Your task to perform on an android device: Open calendar and show me the first week of next month Image 0: 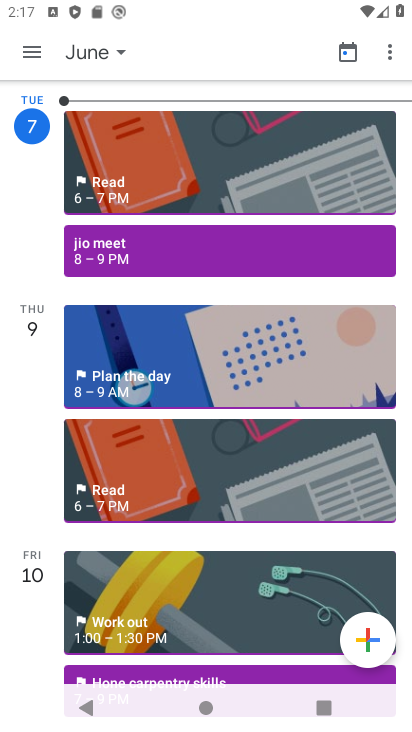
Step 0: press home button
Your task to perform on an android device: Open calendar and show me the first week of next month Image 1: 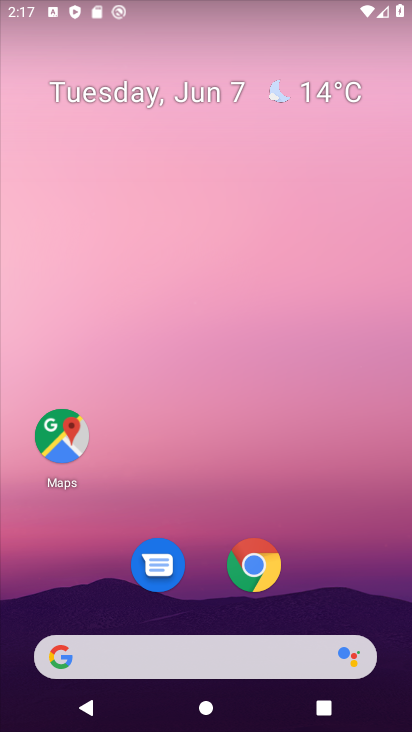
Step 1: drag from (231, 590) to (216, 62)
Your task to perform on an android device: Open calendar and show me the first week of next month Image 2: 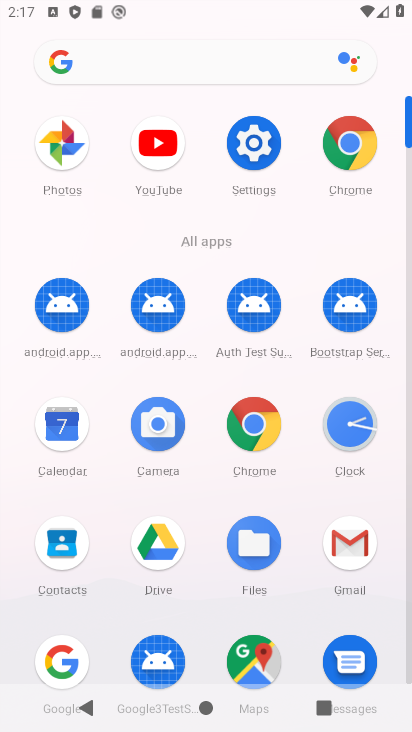
Step 2: click (69, 436)
Your task to perform on an android device: Open calendar and show me the first week of next month Image 3: 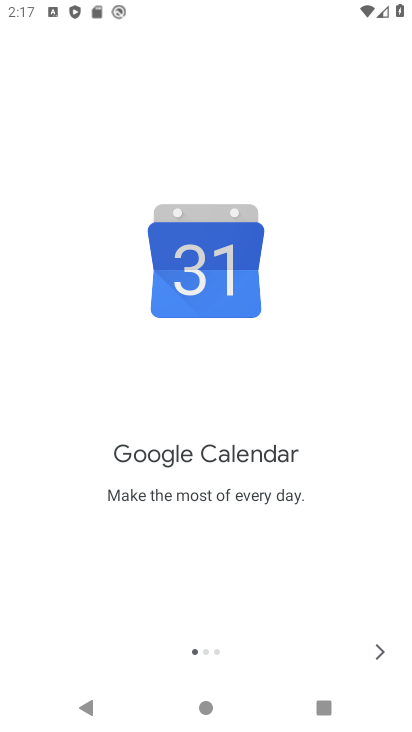
Step 3: click (373, 654)
Your task to perform on an android device: Open calendar and show me the first week of next month Image 4: 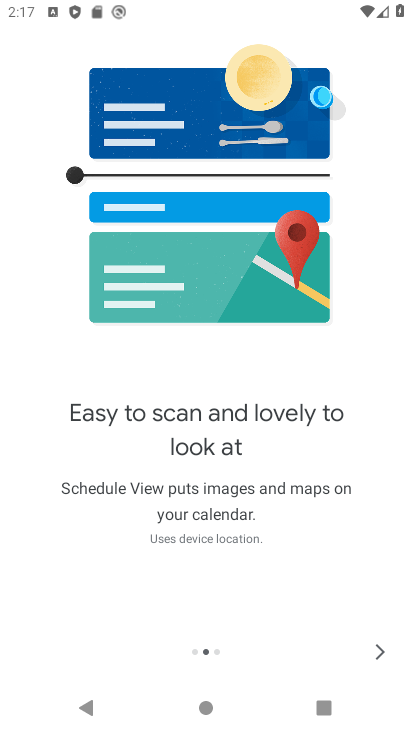
Step 4: click (373, 654)
Your task to perform on an android device: Open calendar and show me the first week of next month Image 5: 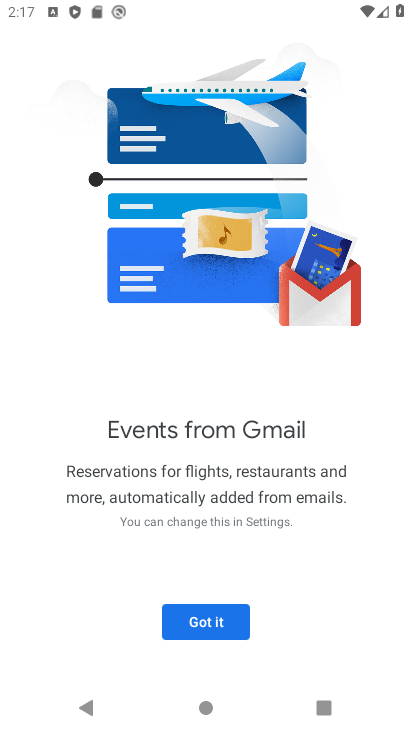
Step 5: click (234, 625)
Your task to perform on an android device: Open calendar and show me the first week of next month Image 6: 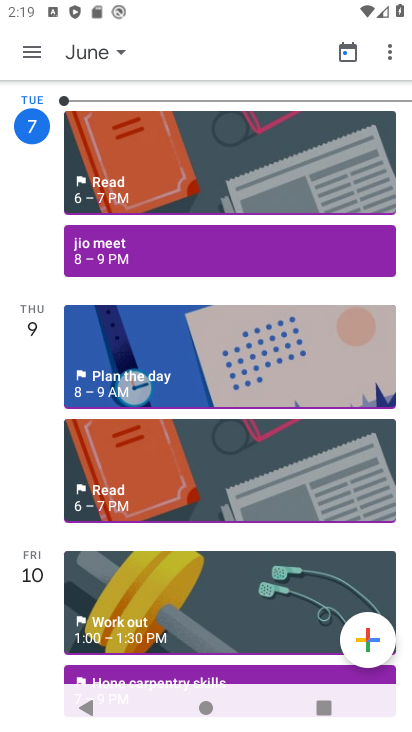
Step 6: click (113, 50)
Your task to perform on an android device: Open calendar and show me the first week of next month Image 7: 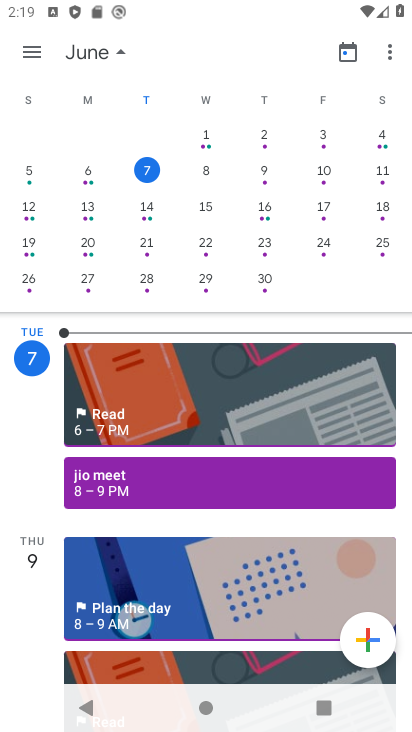
Step 7: drag from (311, 250) to (32, 269)
Your task to perform on an android device: Open calendar and show me the first week of next month Image 8: 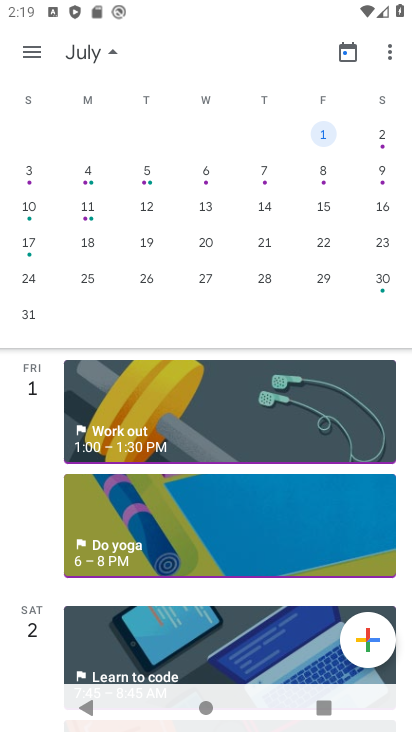
Step 8: click (197, 177)
Your task to perform on an android device: Open calendar and show me the first week of next month Image 9: 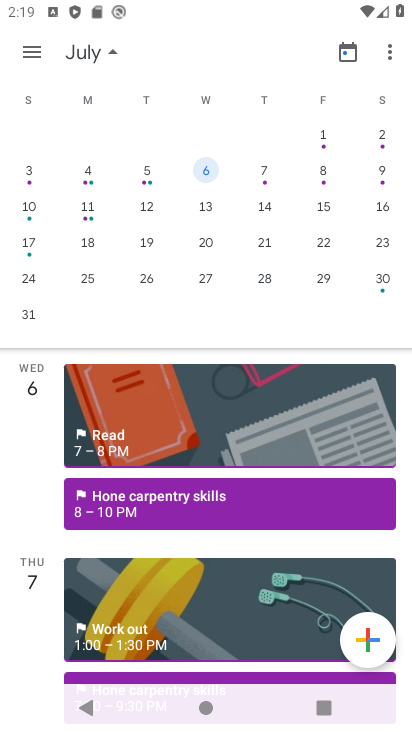
Step 9: click (26, 57)
Your task to perform on an android device: Open calendar and show me the first week of next month Image 10: 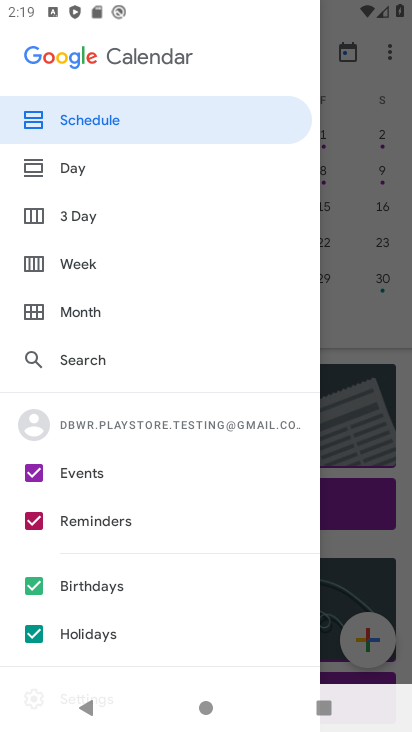
Step 10: click (94, 261)
Your task to perform on an android device: Open calendar and show me the first week of next month Image 11: 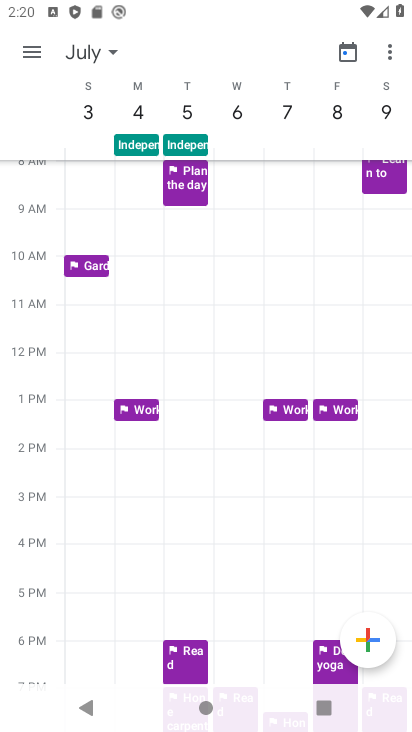
Step 11: task complete